Your task to perform on an android device: allow cookies in the chrome app Image 0: 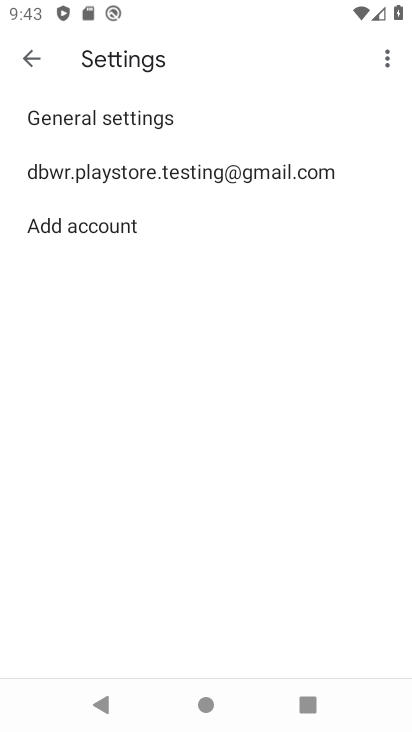
Step 0: press home button
Your task to perform on an android device: allow cookies in the chrome app Image 1: 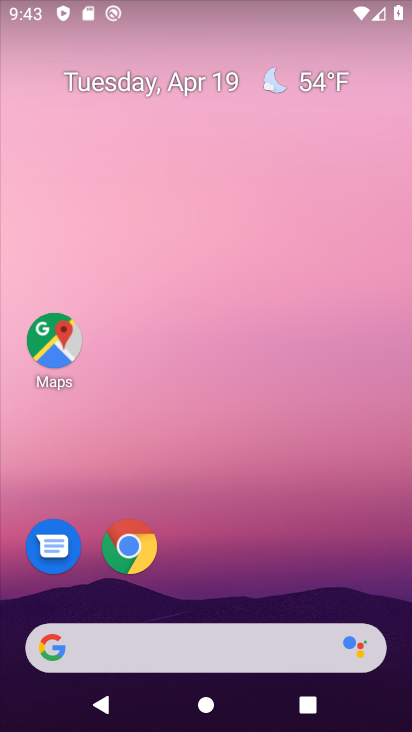
Step 1: click (138, 545)
Your task to perform on an android device: allow cookies in the chrome app Image 2: 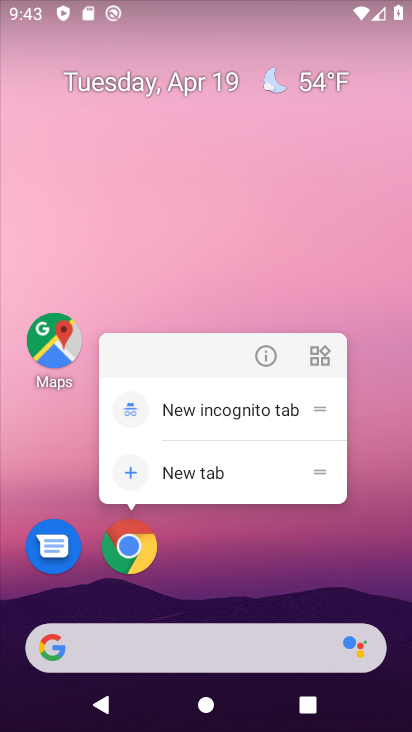
Step 2: click (128, 560)
Your task to perform on an android device: allow cookies in the chrome app Image 3: 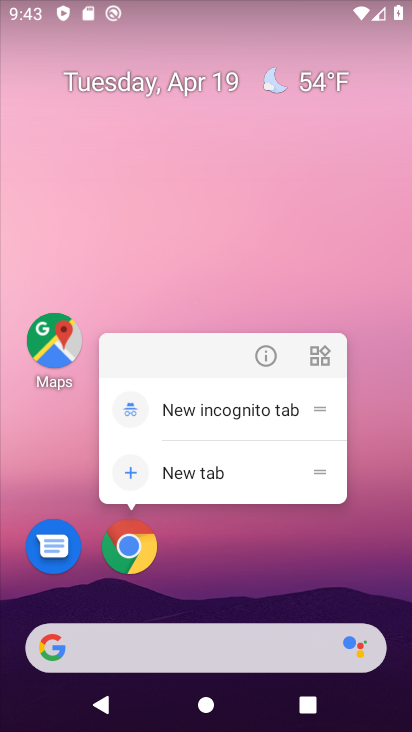
Step 3: click (124, 548)
Your task to perform on an android device: allow cookies in the chrome app Image 4: 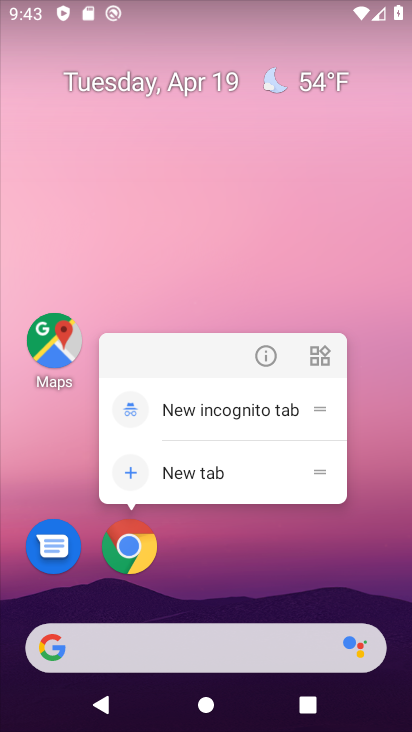
Step 4: click (124, 553)
Your task to perform on an android device: allow cookies in the chrome app Image 5: 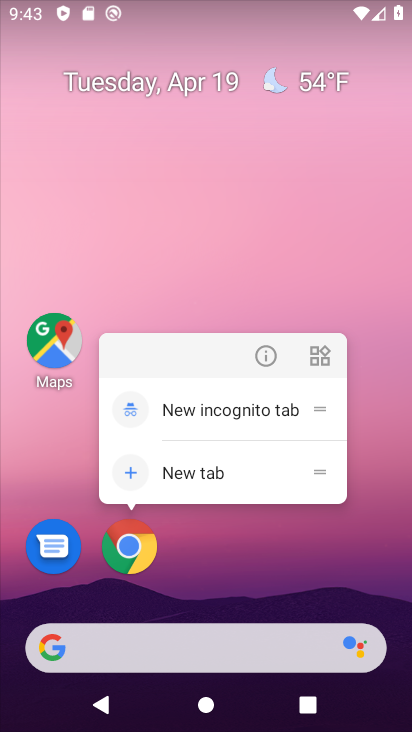
Step 5: click (123, 554)
Your task to perform on an android device: allow cookies in the chrome app Image 6: 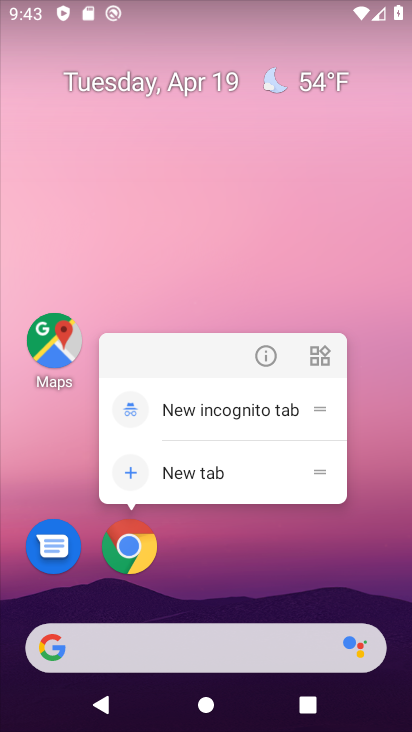
Step 6: click (123, 554)
Your task to perform on an android device: allow cookies in the chrome app Image 7: 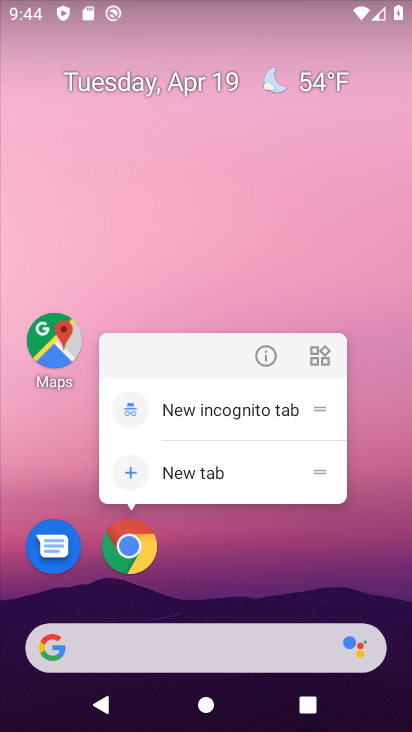
Step 7: click (104, 531)
Your task to perform on an android device: allow cookies in the chrome app Image 8: 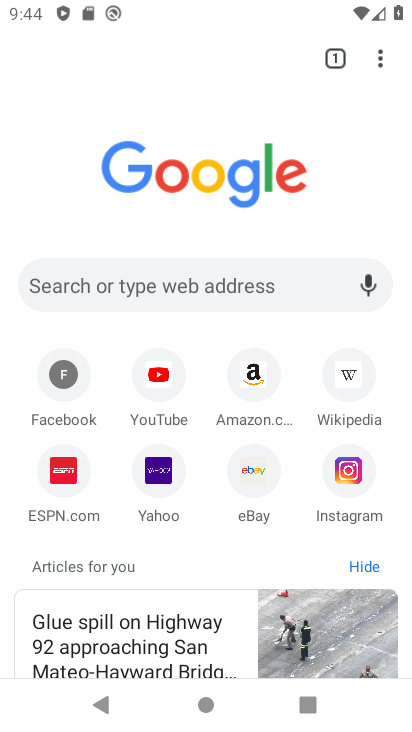
Step 8: click (379, 52)
Your task to perform on an android device: allow cookies in the chrome app Image 9: 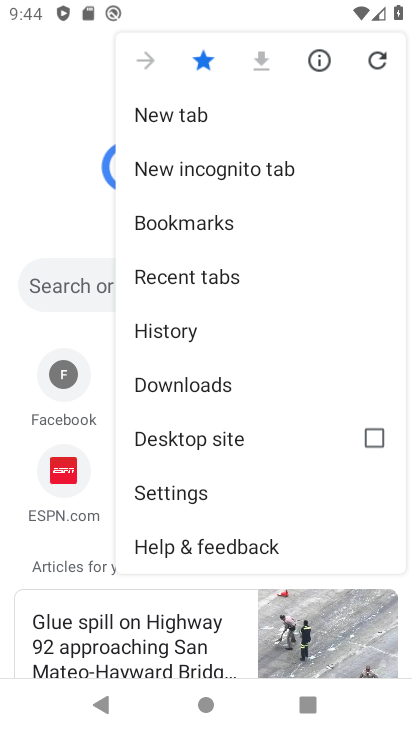
Step 9: click (213, 505)
Your task to perform on an android device: allow cookies in the chrome app Image 10: 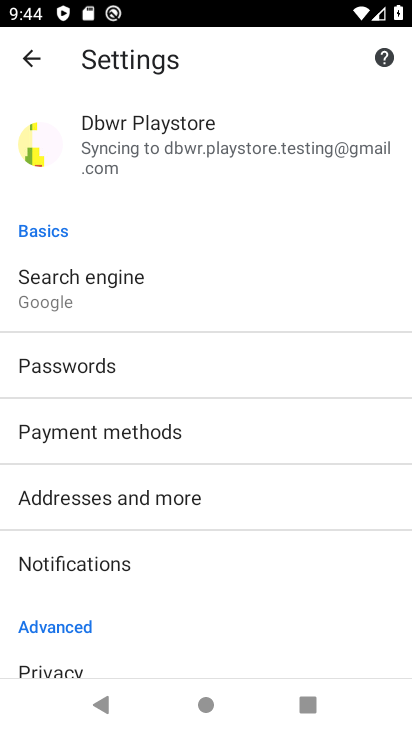
Step 10: drag from (293, 641) to (259, 153)
Your task to perform on an android device: allow cookies in the chrome app Image 11: 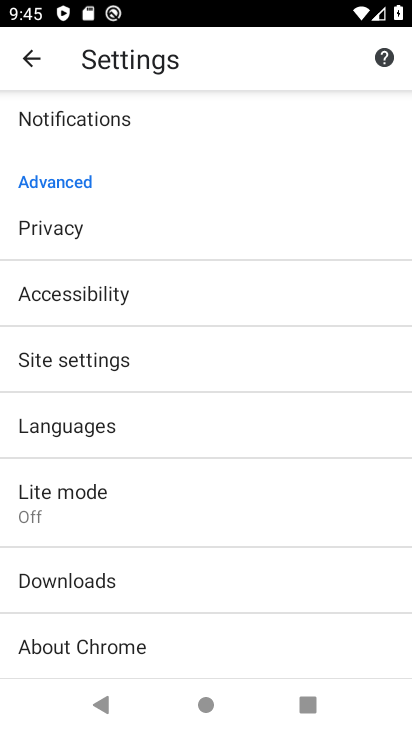
Step 11: drag from (312, 350) to (312, 721)
Your task to perform on an android device: allow cookies in the chrome app Image 12: 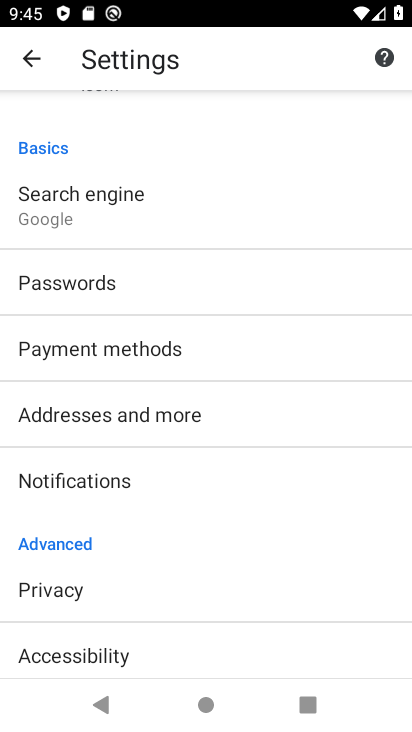
Step 12: drag from (319, 279) to (305, 652)
Your task to perform on an android device: allow cookies in the chrome app Image 13: 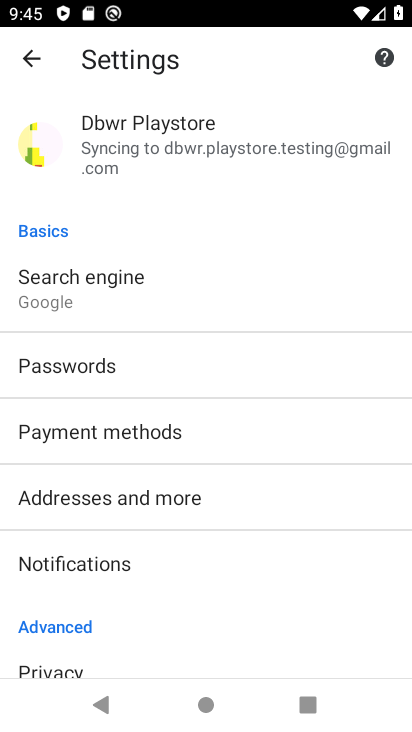
Step 13: drag from (350, 589) to (288, 201)
Your task to perform on an android device: allow cookies in the chrome app Image 14: 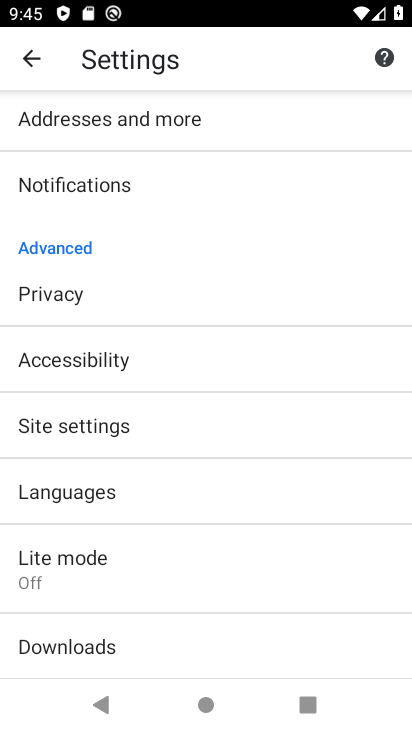
Step 14: drag from (256, 183) to (239, 632)
Your task to perform on an android device: allow cookies in the chrome app Image 15: 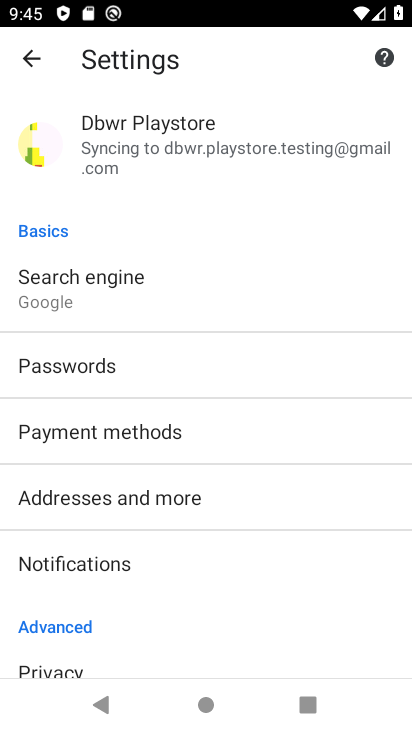
Step 15: drag from (293, 611) to (247, 71)
Your task to perform on an android device: allow cookies in the chrome app Image 16: 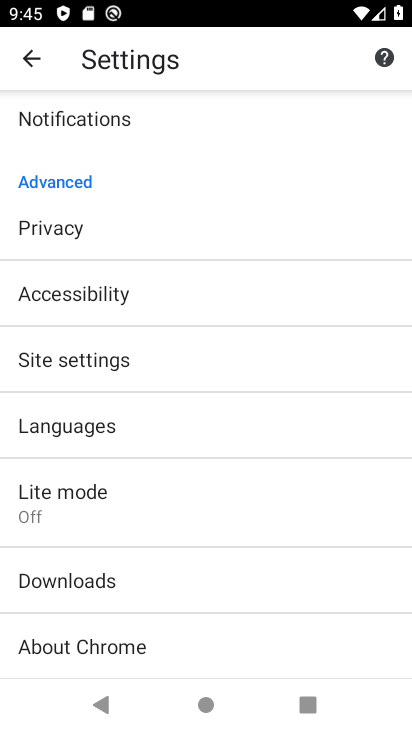
Step 16: click (110, 359)
Your task to perform on an android device: allow cookies in the chrome app Image 17: 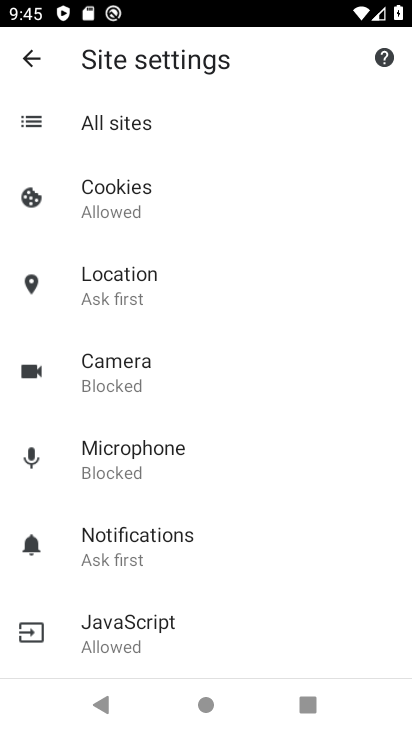
Step 17: click (204, 200)
Your task to perform on an android device: allow cookies in the chrome app Image 18: 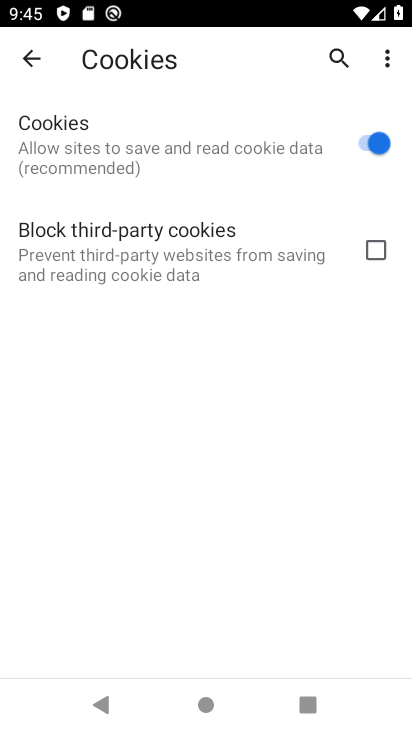
Step 18: task complete